Your task to perform on an android device: turn vacation reply on in the gmail app Image 0: 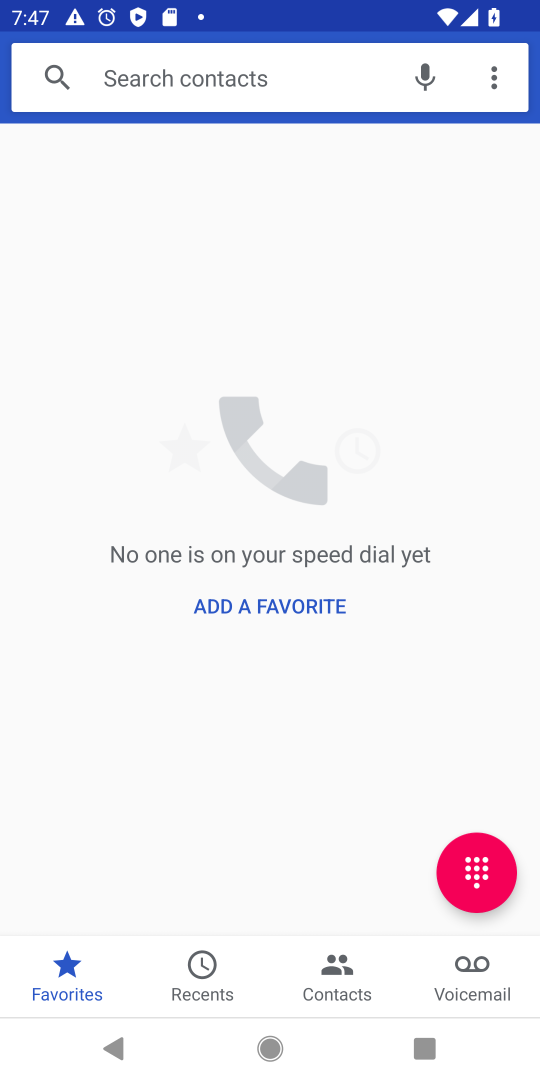
Step 0: press home button
Your task to perform on an android device: turn vacation reply on in the gmail app Image 1: 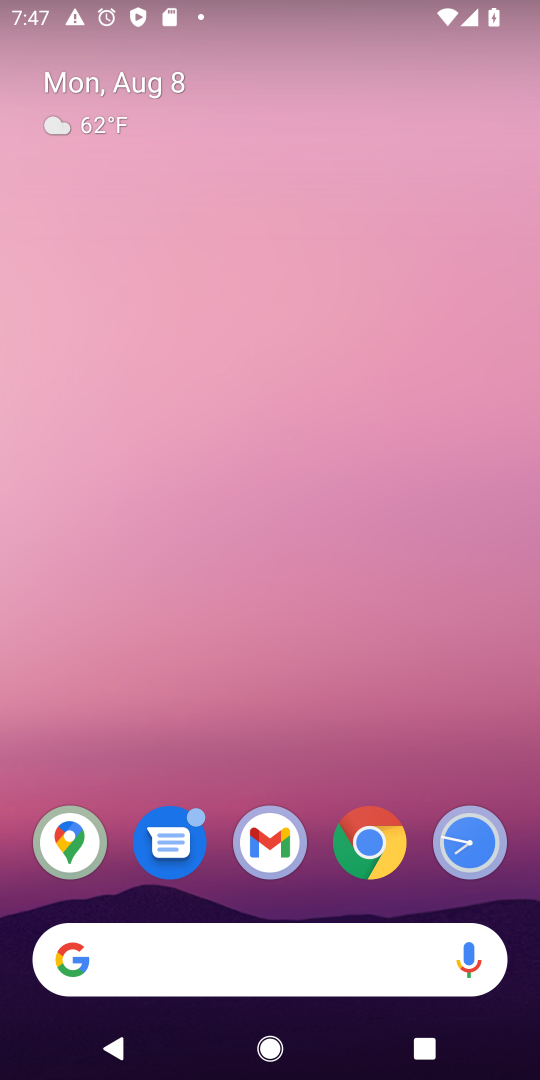
Step 1: click (250, 846)
Your task to perform on an android device: turn vacation reply on in the gmail app Image 2: 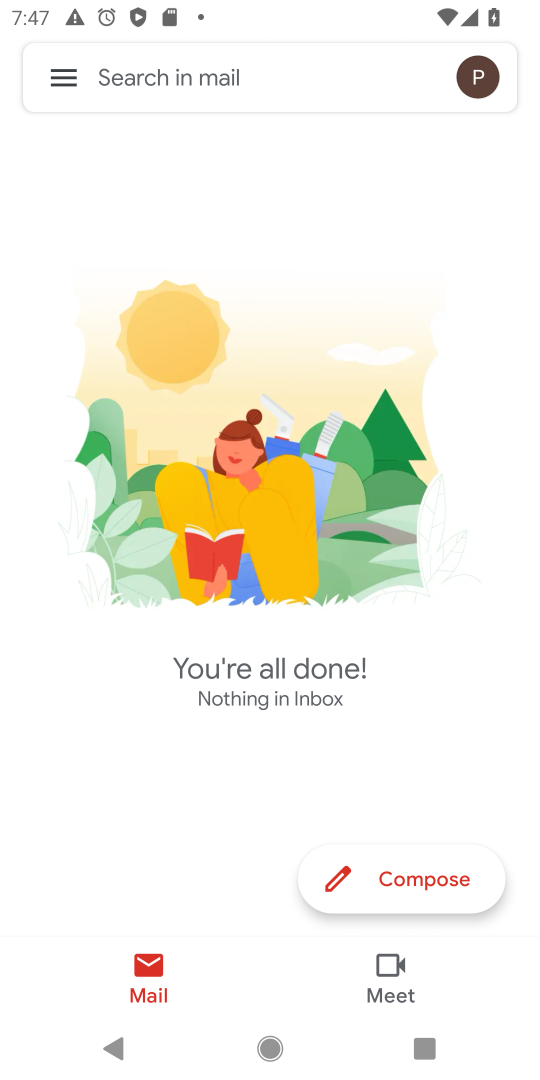
Step 2: click (58, 68)
Your task to perform on an android device: turn vacation reply on in the gmail app Image 3: 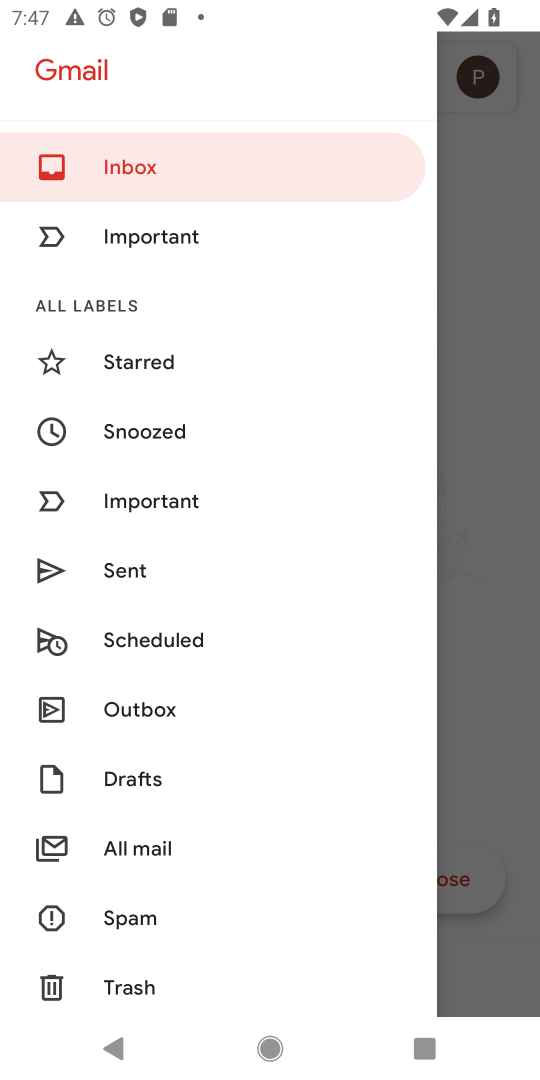
Step 3: drag from (299, 919) to (355, 147)
Your task to perform on an android device: turn vacation reply on in the gmail app Image 4: 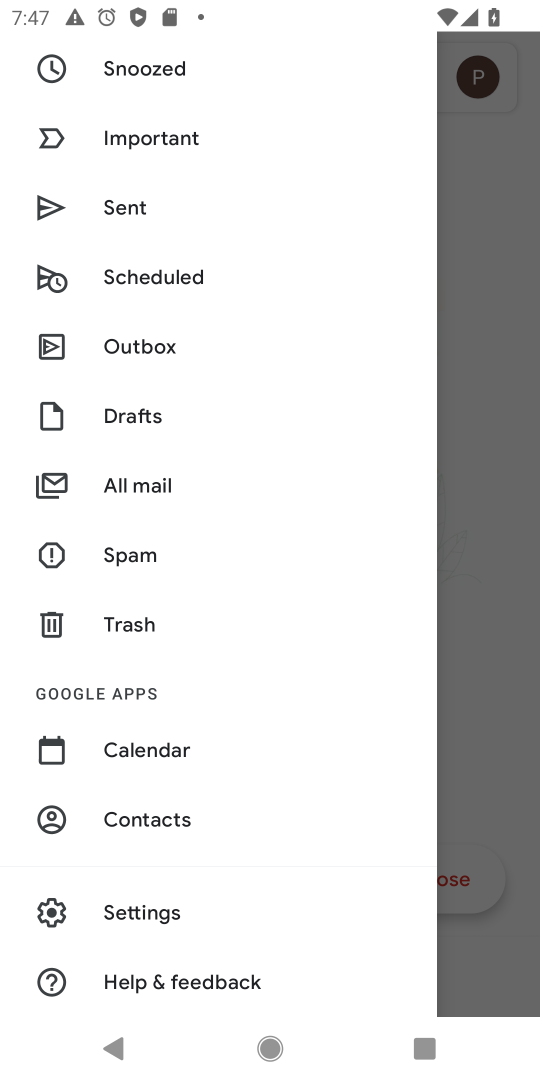
Step 4: click (166, 908)
Your task to perform on an android device: turn vacation reply on in the gmail app Image 5: 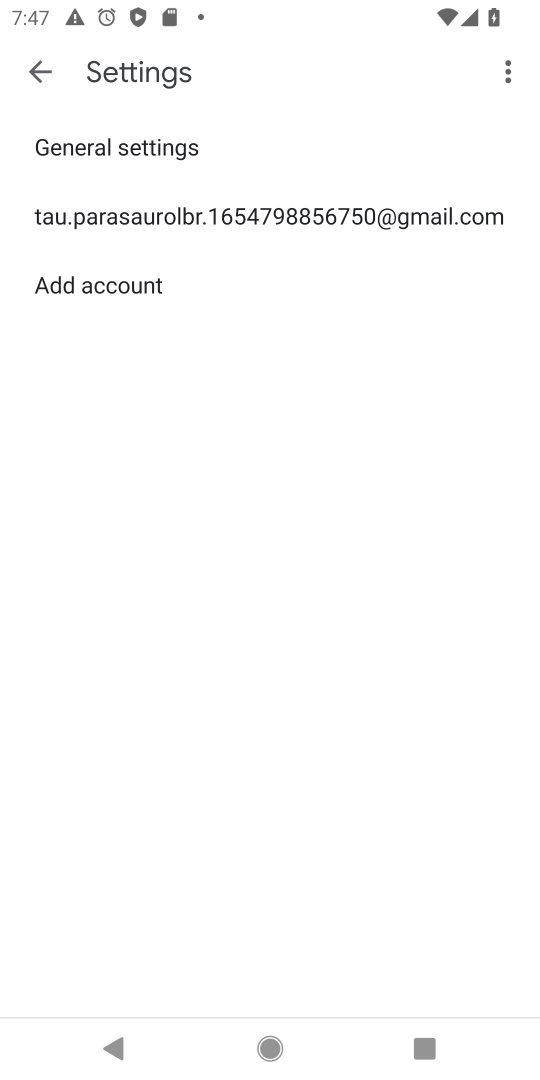
Step 5: click (229, 218)
Your task to perform on an android device: turn vacation reply on in the gmail app Image 6: 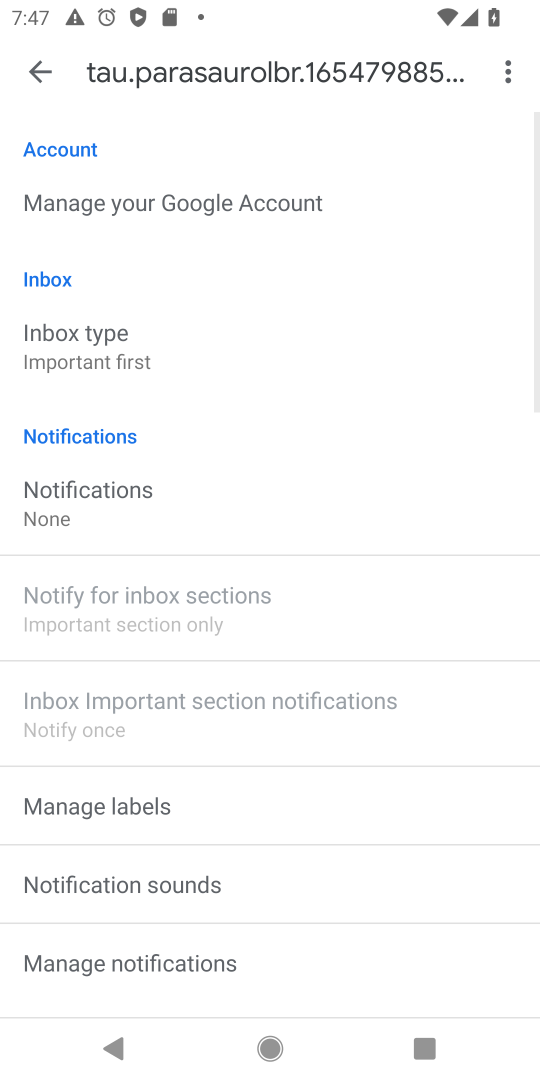
Step 6: drag from (384, 957) to (369, 162)
Your task to perform on an android device: turn vacation reply on in the gmail app Image 7: 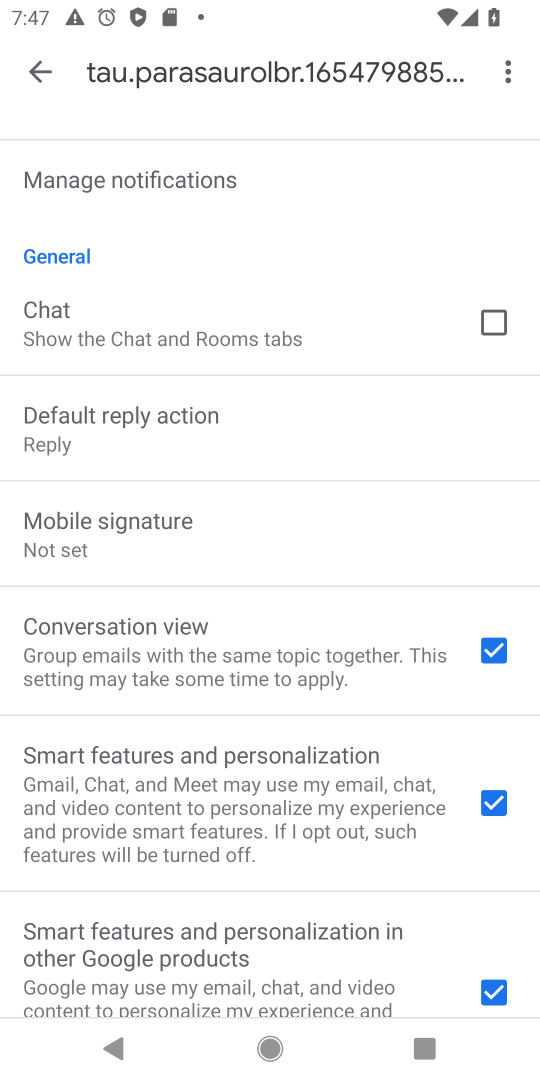
Step 7: drag from (408, 900) to (392, 300)
Your task to perform on an android device: turn vacation reply on in the gmail app Image 8: 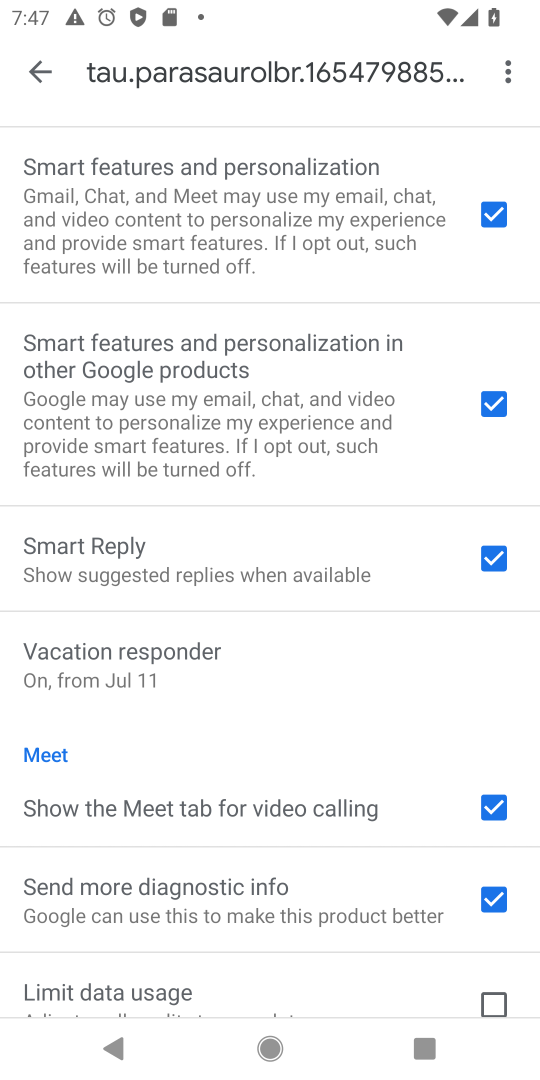
Step 8: drag from (304, 936) to (330, 307)
Your task to perform on an android device: turn vacation reply on in the gmail app Image 9: 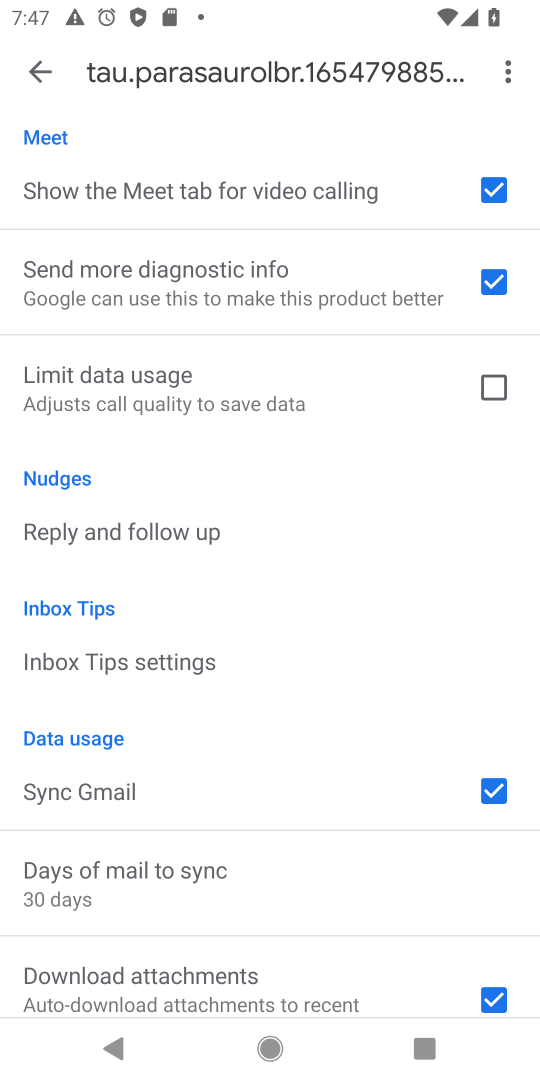
Step 9: drag from (286, 894) to (309, 299)
Your task to perform on an android device: turn vacation reply on in the gmail app Image 10: 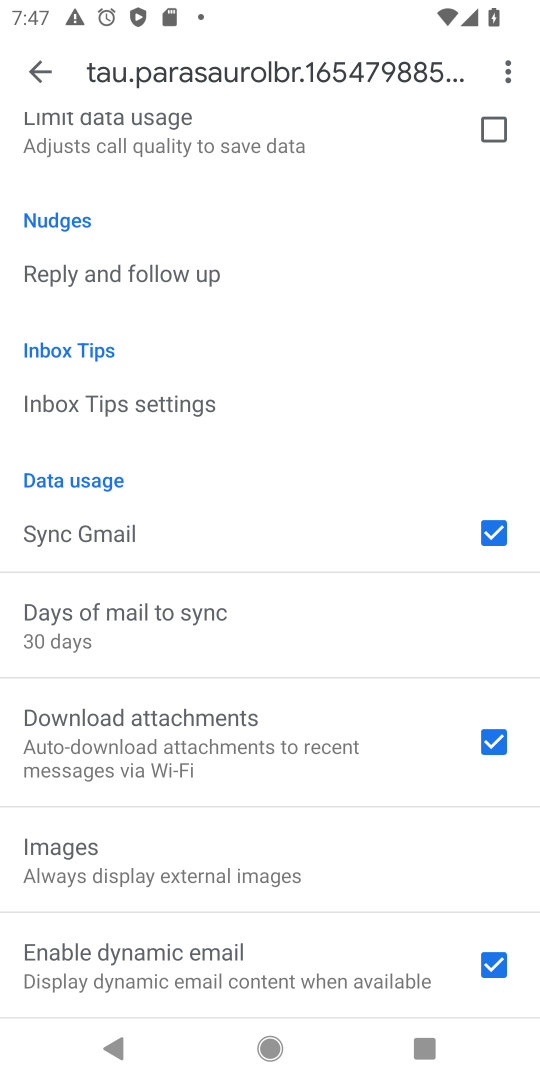
Step 10: drag from (266, 267) to (309, 734)
Your task to perform on an android device: turn vacation reply on in the gmail app Image 11: 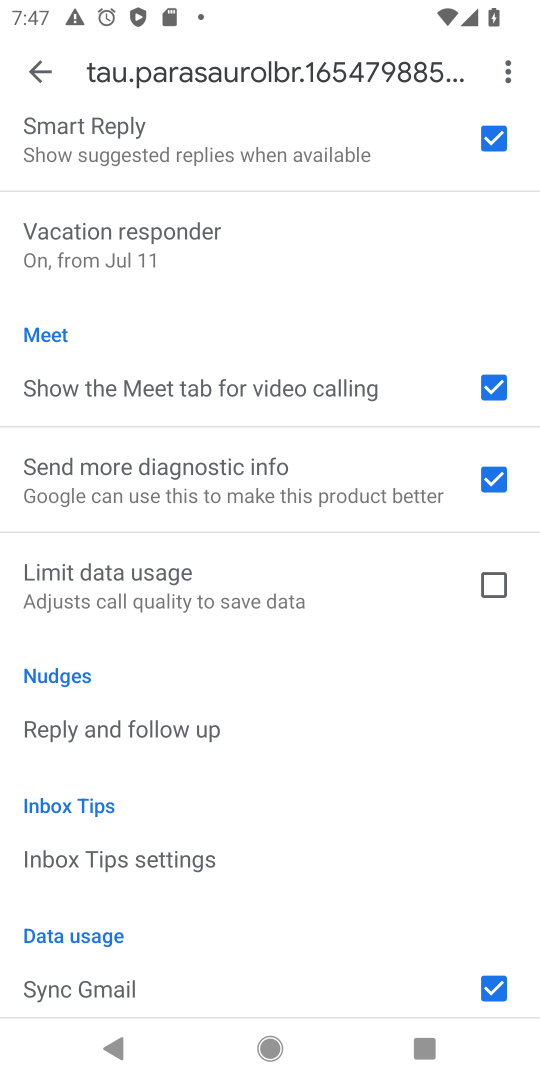
Step 11: drag from (270, 283) to (317, 776)
Your task to perform on an android device: turn vacation reply on in the gmail app Image 12: 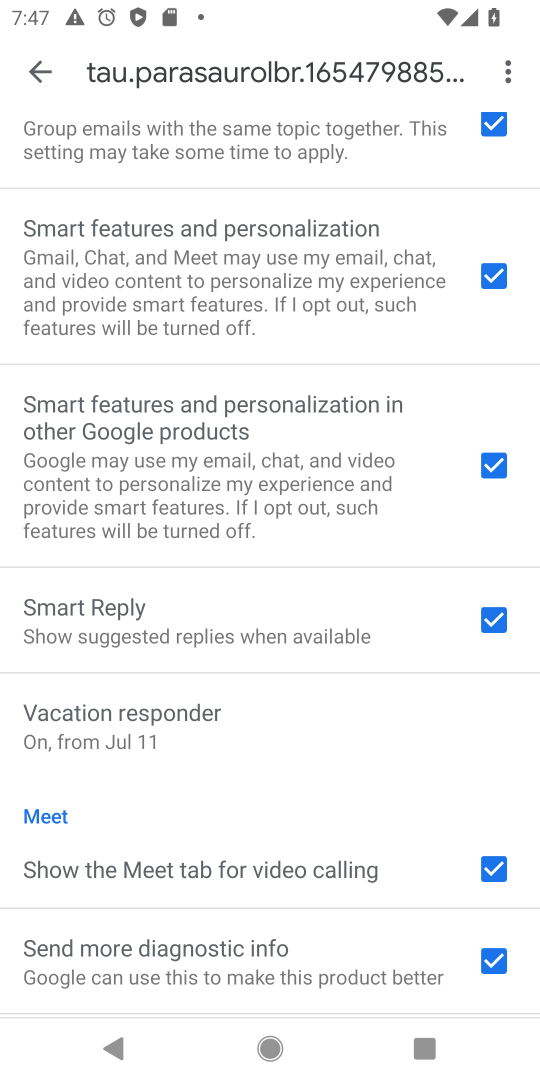
Step 12: click (130, 734)
Your task to perform on an android device: turn vacation reply on in the gmail app Image 13: 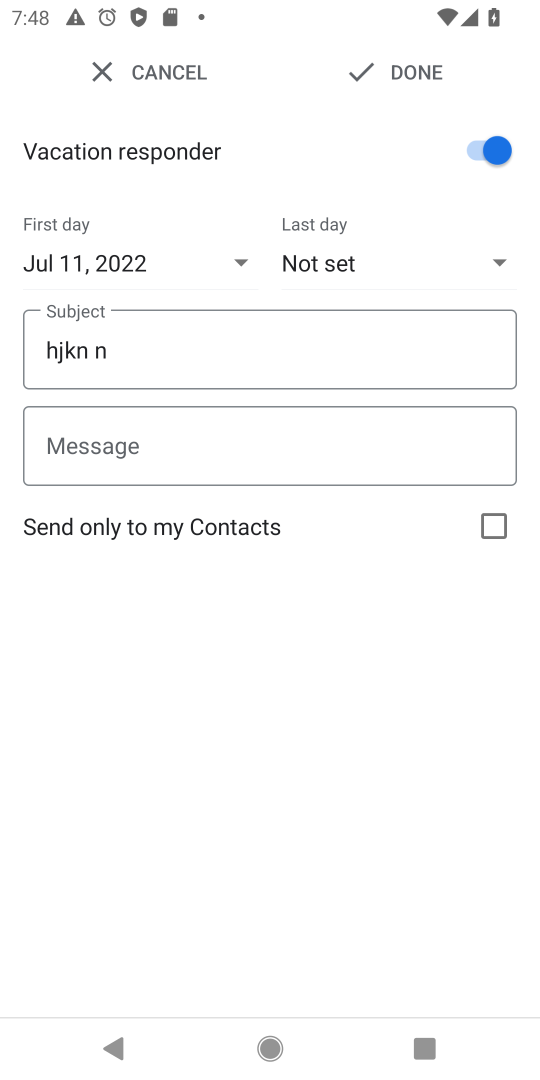
Step 13: task complete